Your task to perform on an android device: find photos in the google photos app Image 0: 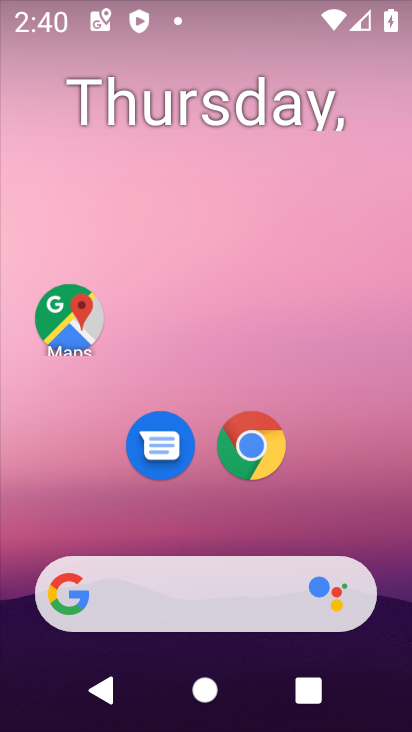
Step 0: press home button
Your task to perform on an android device: find photos in the google photos app Image 1: 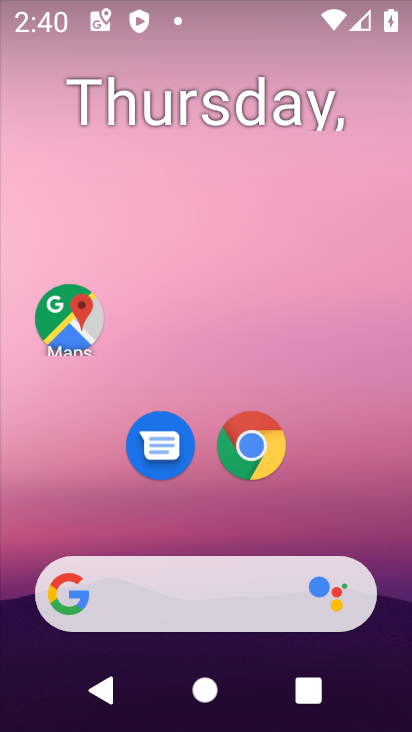
Step 1: drag from (6, 532) to (247, 94)
Your task to perform on an android device: find photos in the google photos app Image 2: 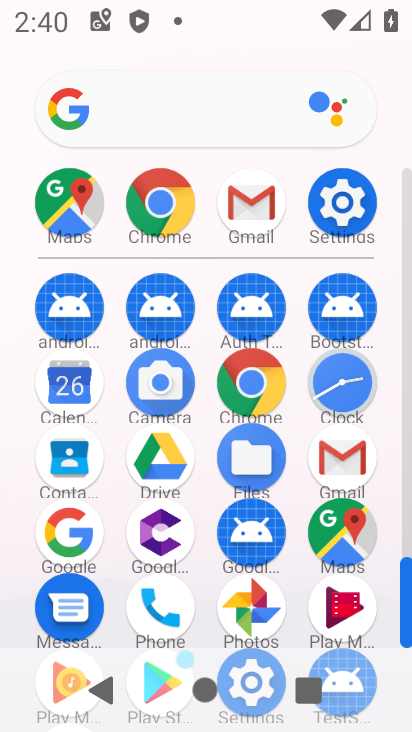
Step 2: click (252, 602)
Your task to perform on an android device: find photos in the google photos app Image 3: 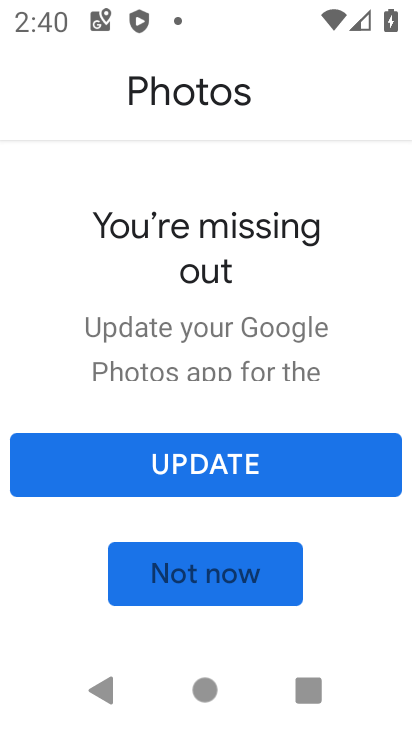
Step 3: click (189, 563)
Your task to perform on an android device: find photos in the google photos app Image 4: 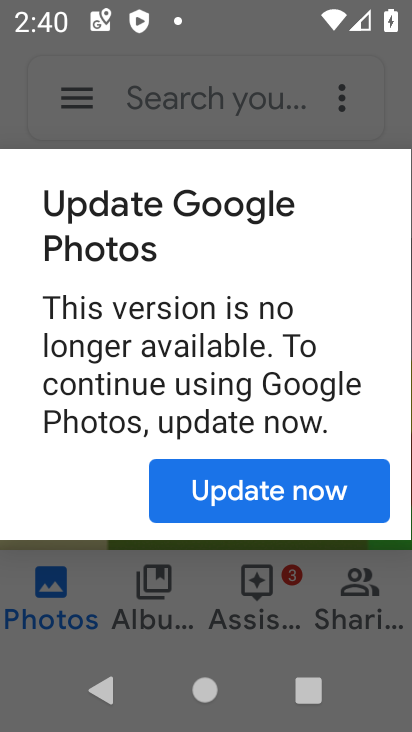
Step 4: click (252, 498)
Your task to perform on an android device: find photos in the google photos app Image 5: 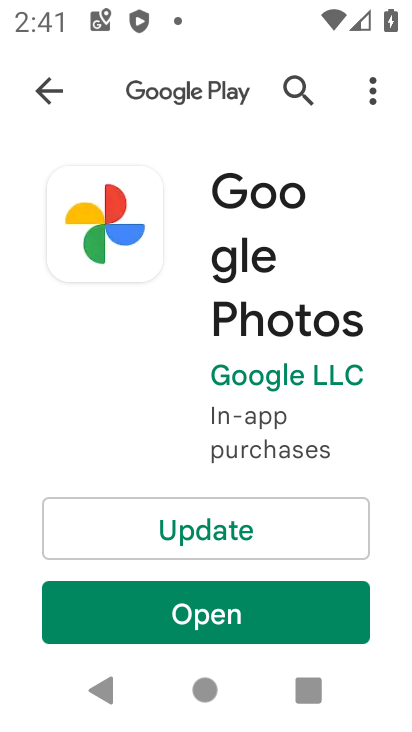
Step 5: click (208, 611)
Your task to perform on an android device: find photos in the google photos app Image 6: 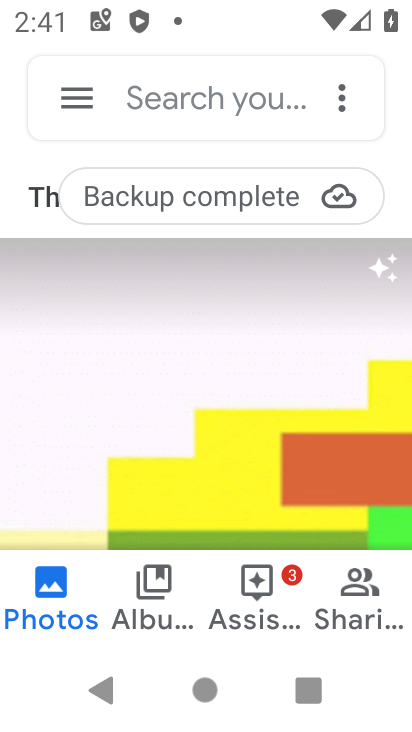
Step 6: click (53, 582)
Your task to perform on an android device: find photos in the google photos app Image 7: 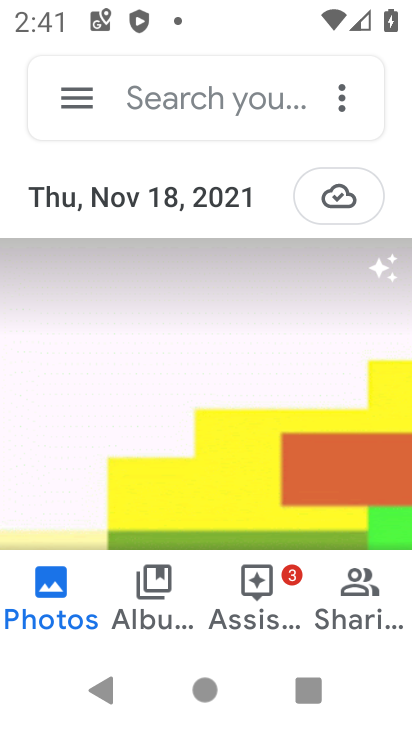
Step 7: task complete